Your task to perform on an android device: Add "dell xps" to the cart on newegg.com Image 0: 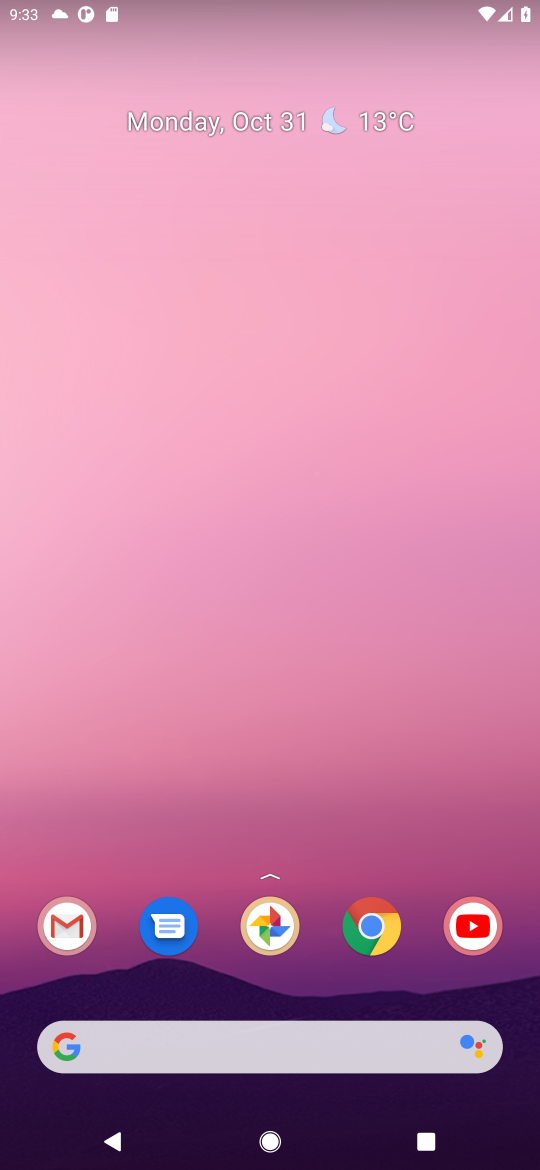
Step 0: click (286, 1074)
Your task to perform on an android device: Add "dell xps" to the cart on newegg.com Image 1: 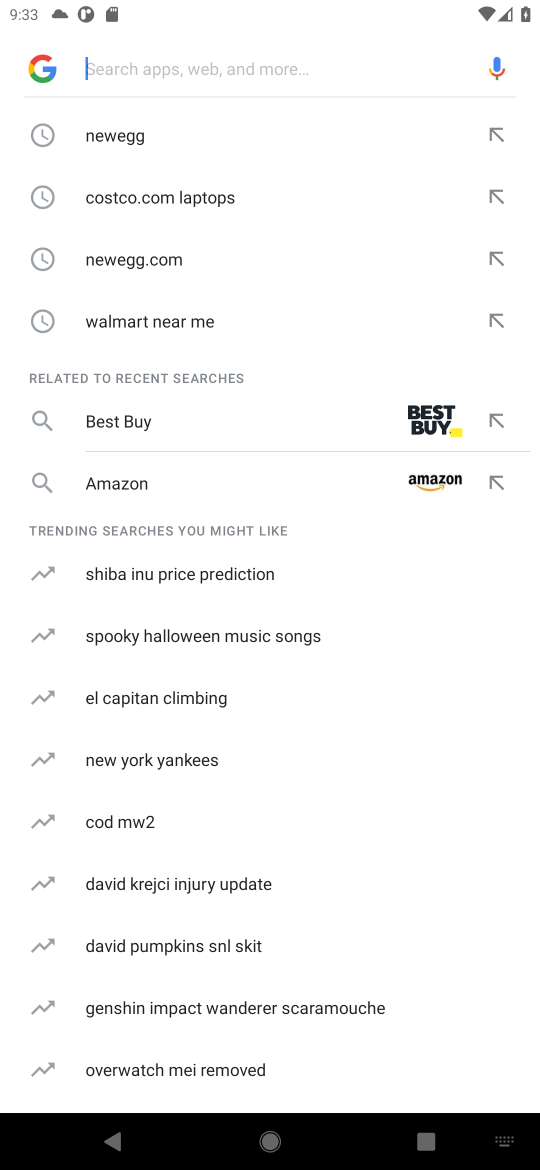
Step 1: click (131, 135)
Your task to perform on an android device: Add "dell xps" to the cart on newegg.com Image 2: 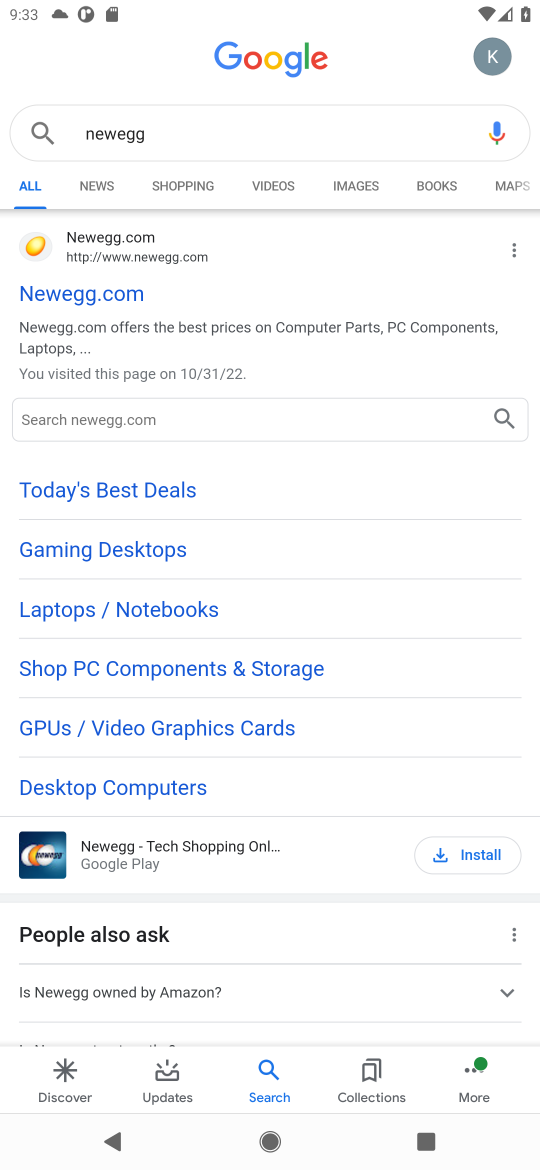
Step 2: click (104, 416)
Your task to perform on an android device: Add "dell xps" to the cart on newegg.com Image 3: 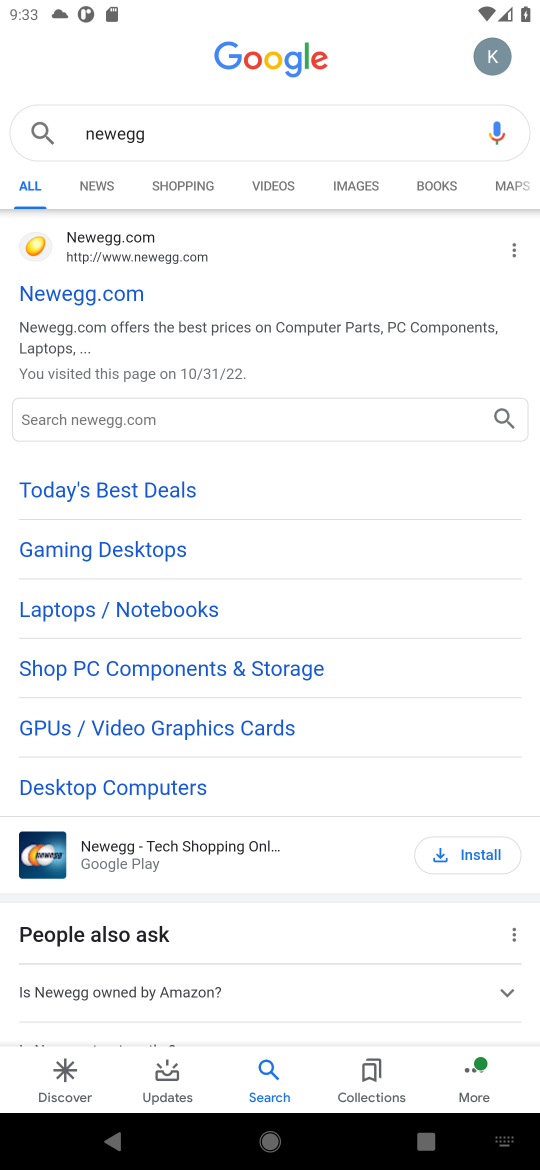
Step 3: type "dell xps"
Your task to perform on an android device: Add "dell xps" to the cart on newegg.com Image 4: 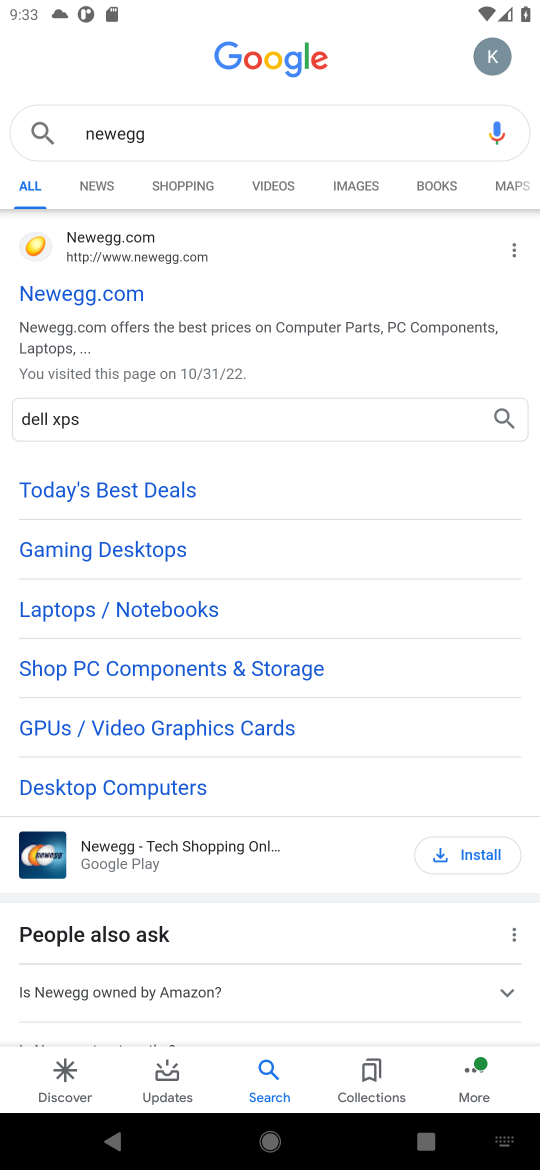
Step 4: click (505, 421)
Your task to perform on an android device: Add "dell xps" to the cart on newegg.com Image 5: 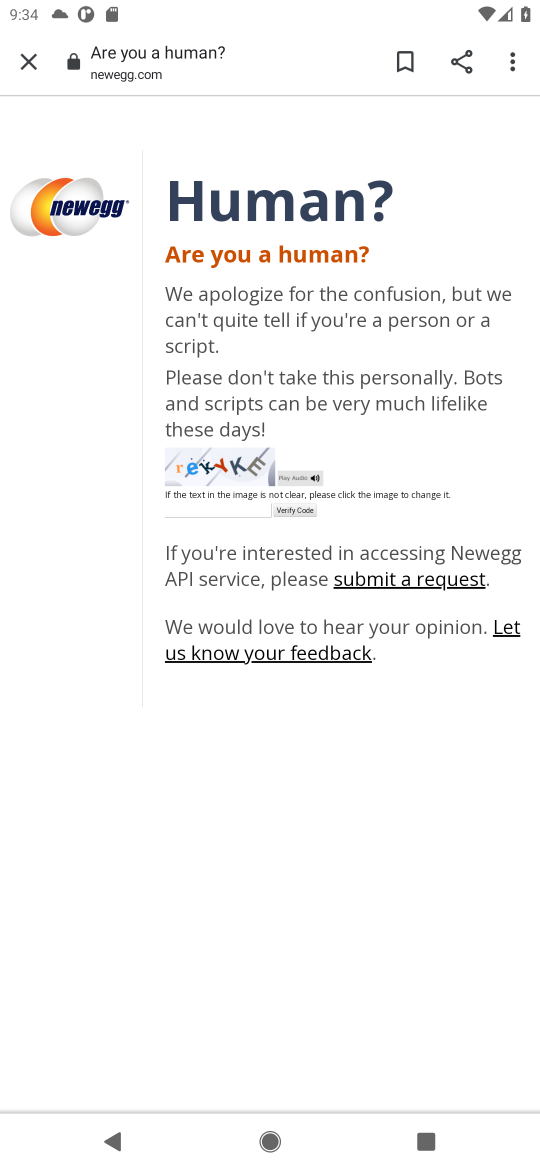
Step 5: click (236, 511)
Your task to perform on an android device: Add "dell xps" to the cart on newegg.com Image 6: 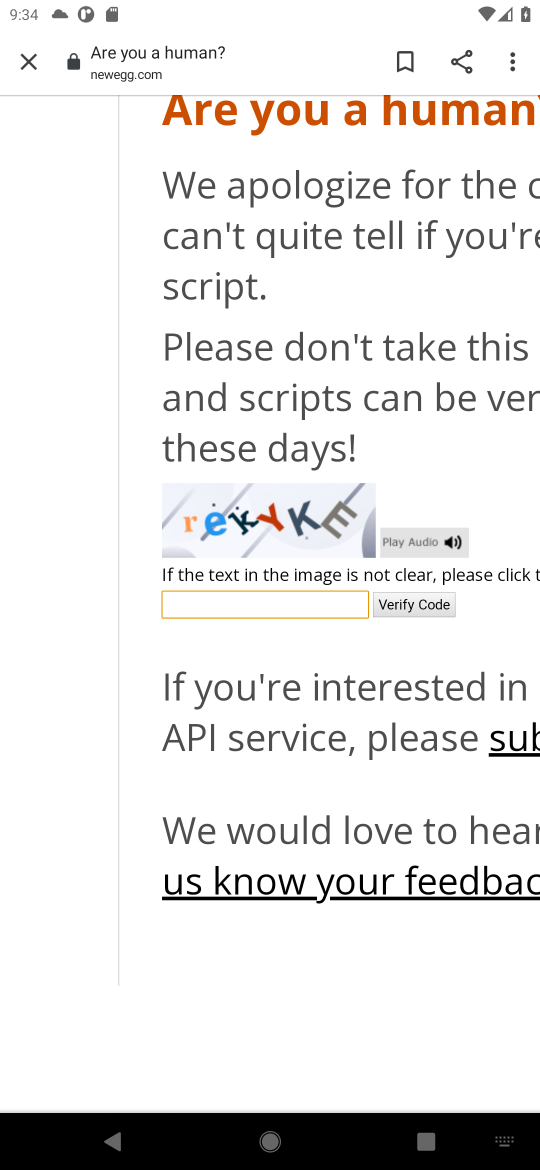
Step 6: type "rekYKm"
Your task to perform on an android device: Add "dell xps" to the cart on newegg.com Image 7: 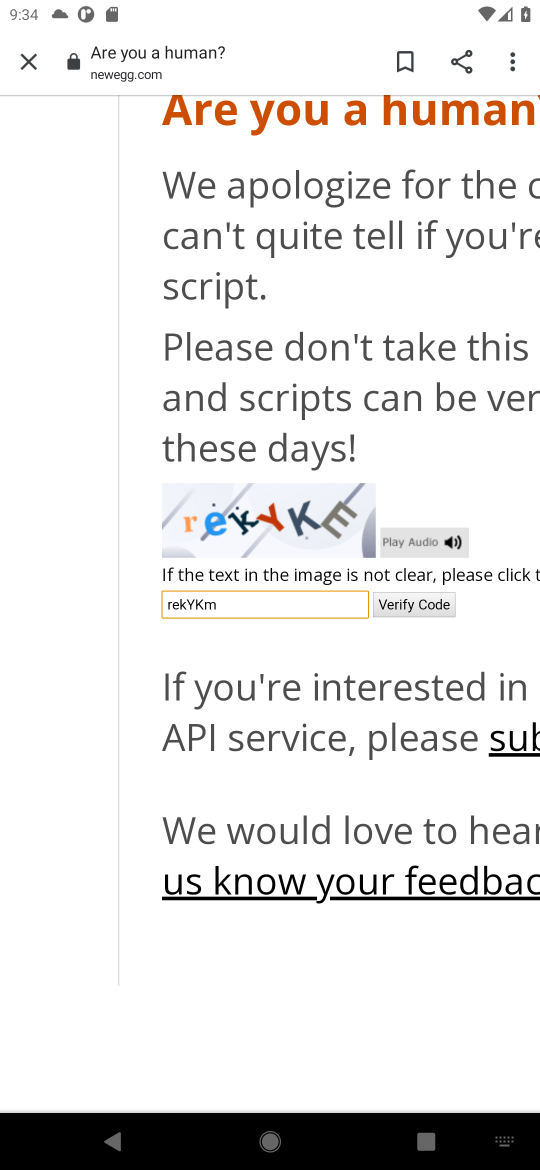
Step 7: click (440, 606)
Your task to perform on an android device: Add "dell xps" to the cart on newegg.com Image 8: 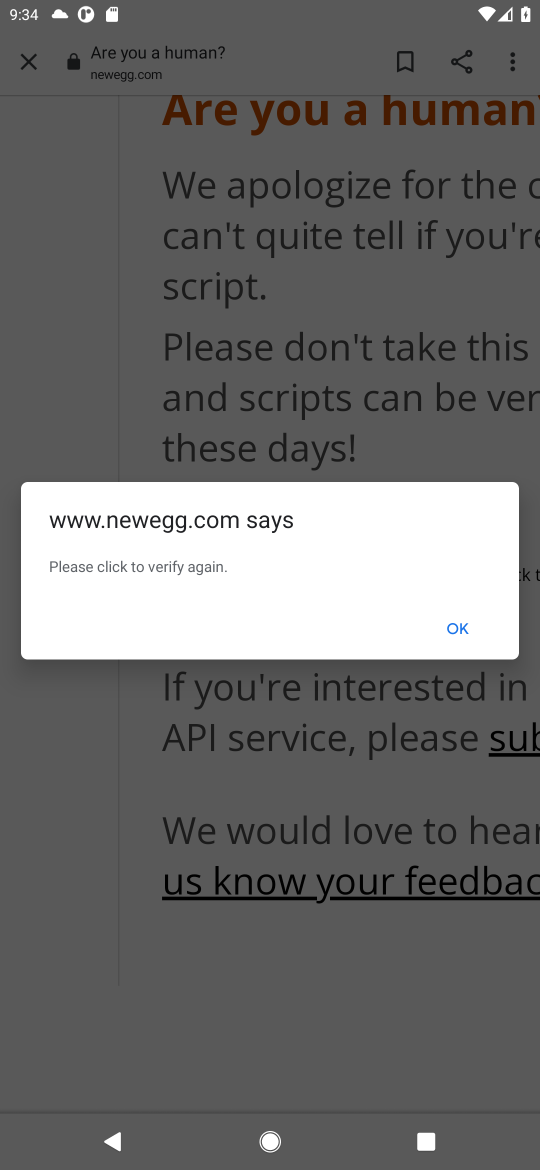
Step 8: click (452, 628)
Your task to perform on an android device: Add "dell xps" to the cart on newegg.com Image 9: 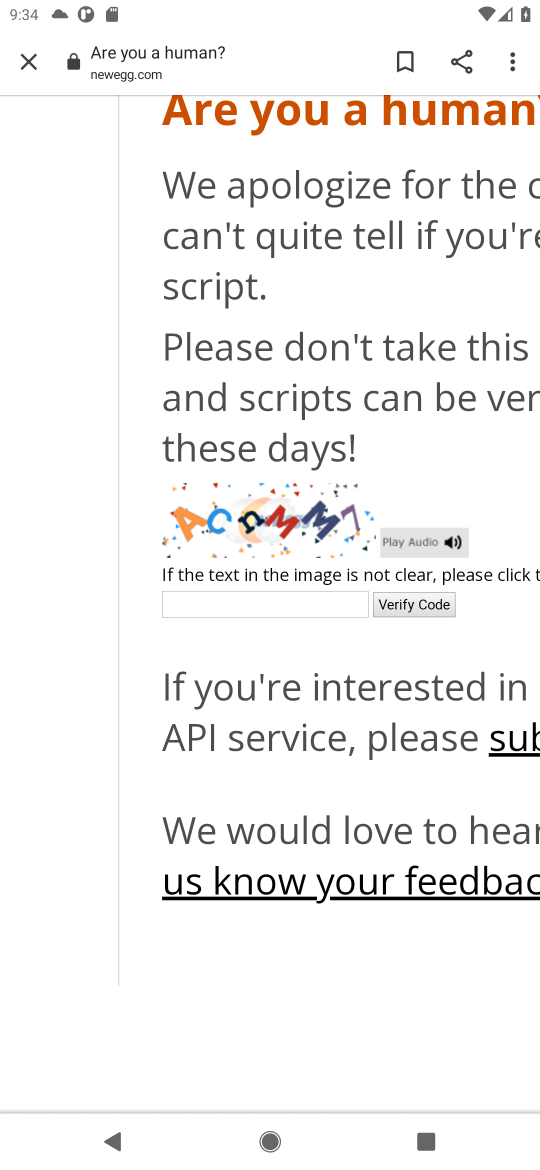
Step 9: click (344, 600)
Your task to perform on an android device: Add "dell xps" to the cart on newegg.com Image 10: 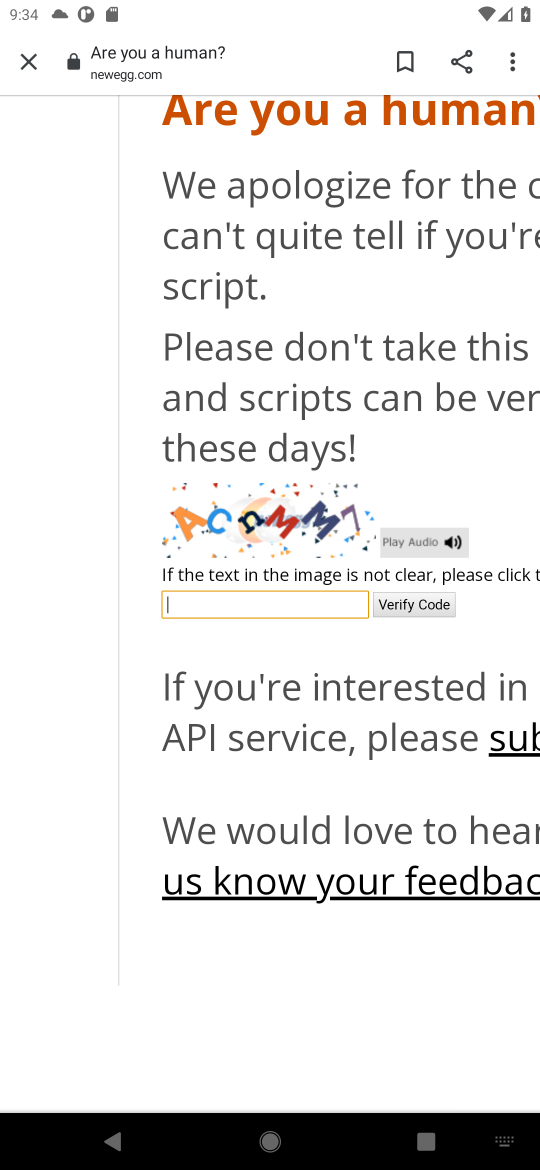
Step 10: type "AcnMM7"
Your task to perform on an android device: Add "dell xps" to the cart on newegg.com Image 11: 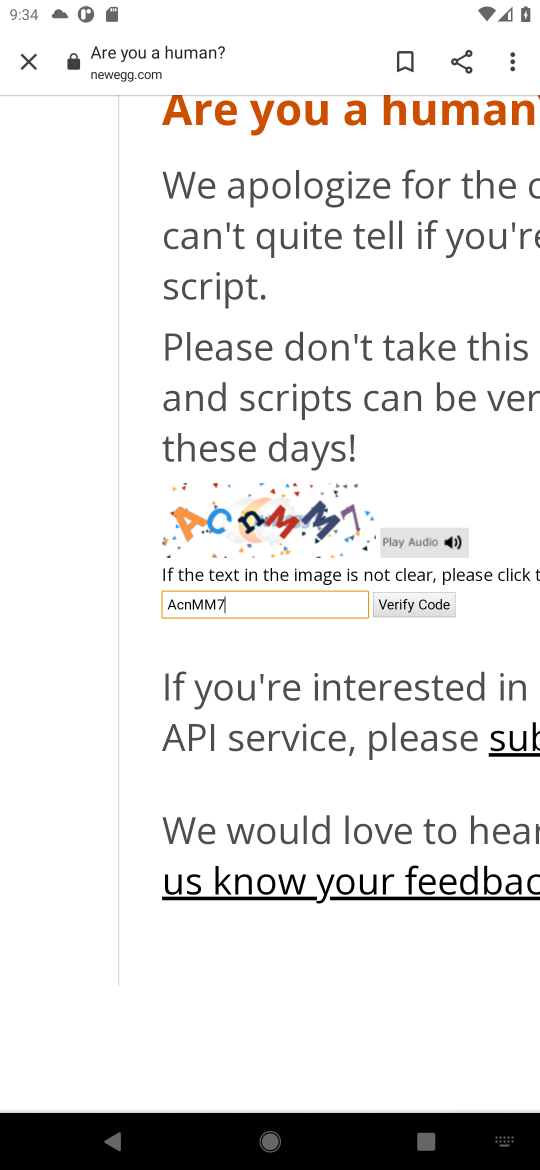
Step 11: click (401, 599)
Your task to perform on an android device: Add "dell xps" to the cart on newegg.com Image 12: 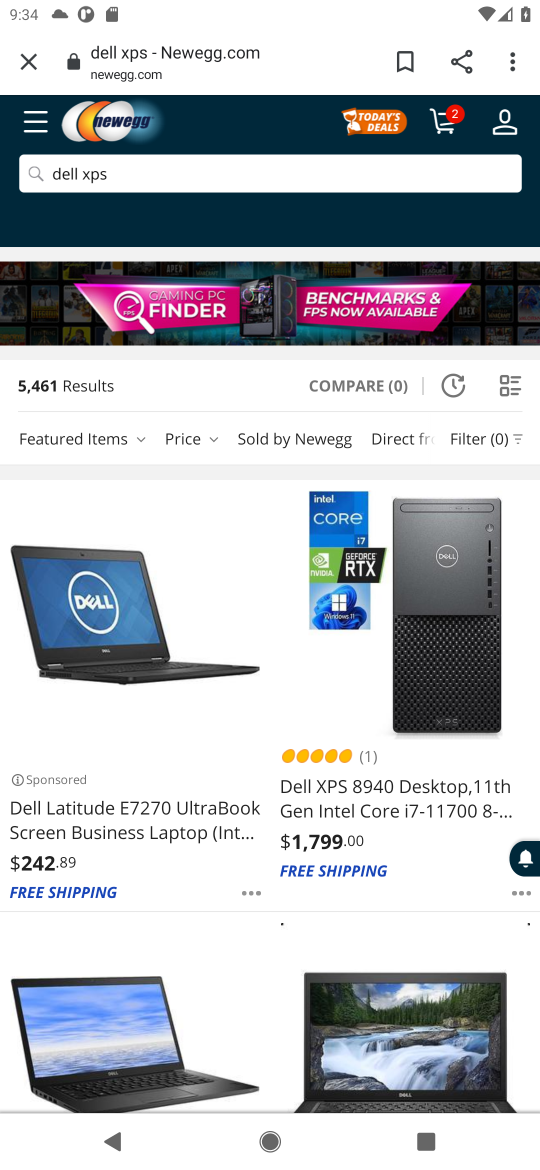
Step 12: click (197, 718)
Your task to perform on an android device: Add "dell xps" to the cart on newegg.com Image 13: 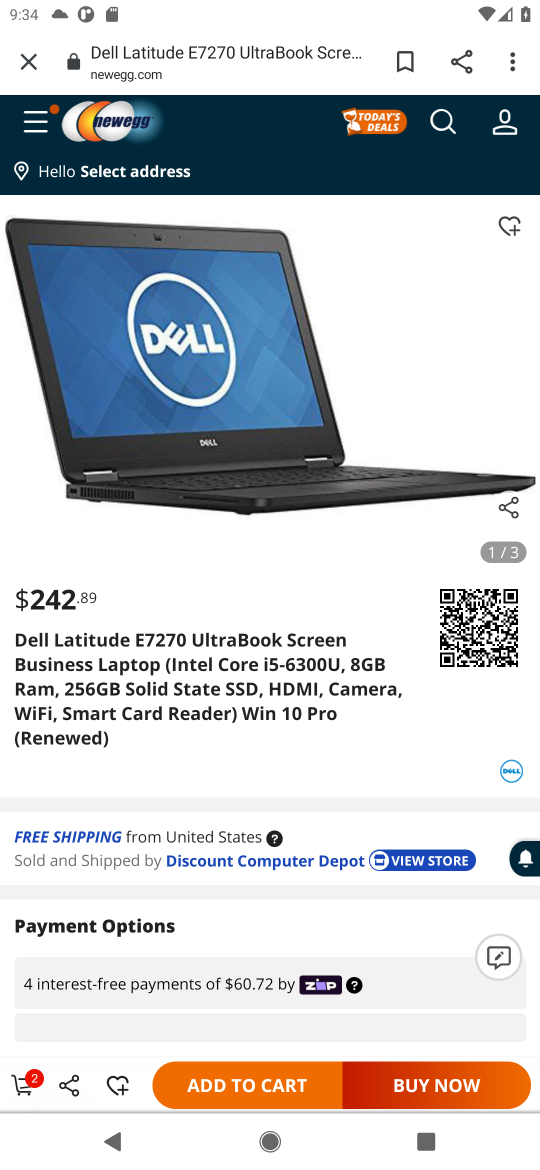
Step 13: click (256, 1072)
Your task to perform on an android device: Add "dell xps" to the cart on newegg.com Image 14: 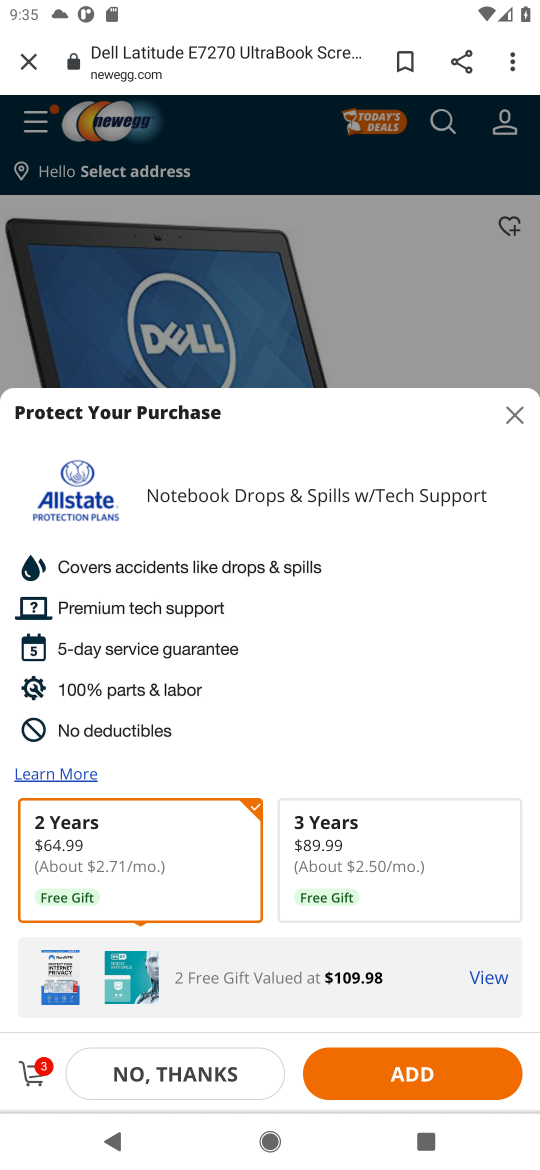
Step 14: task complete